Your task to perform on an android device: turn off improve location accuracy Image 0: 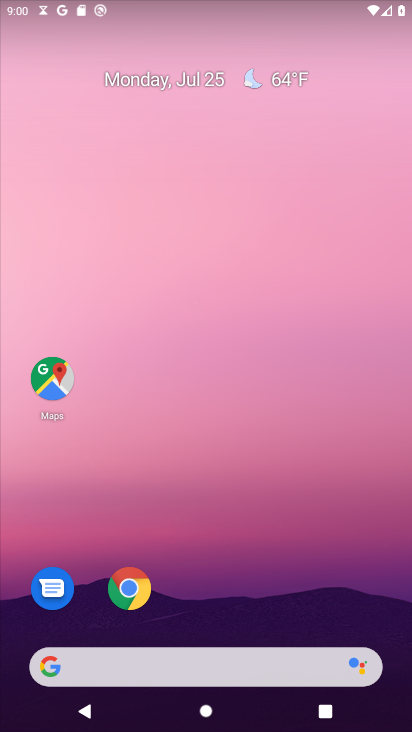
Step 0: drag from (198, 657) to (187, 72)
Your task to perform on an android device: turn off improve location accuracy Image 1: 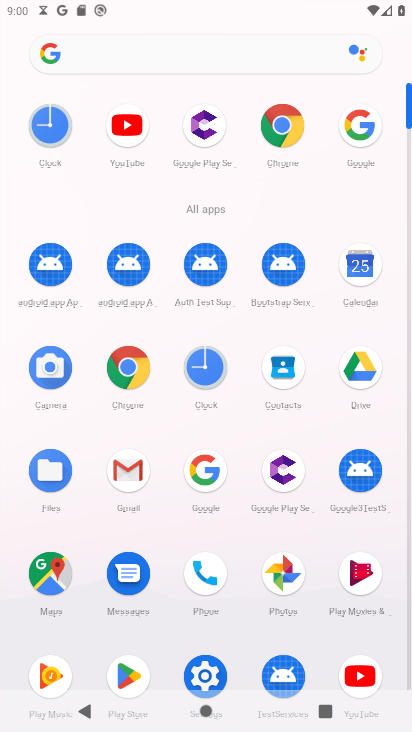
Step 1: click (208, 676)
Your task to perform on an android device: turn off improve location accuracy Image 2: 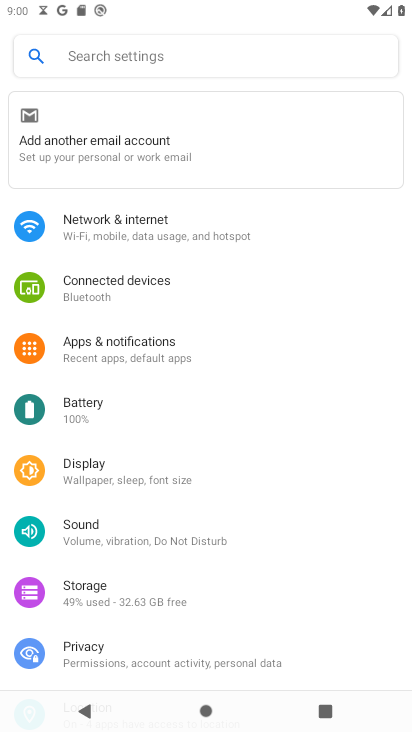
Step 2: drag from (138, 607) to (117, 185)
Your task to perform on an android device: turn off improve location accuracy Image 3: 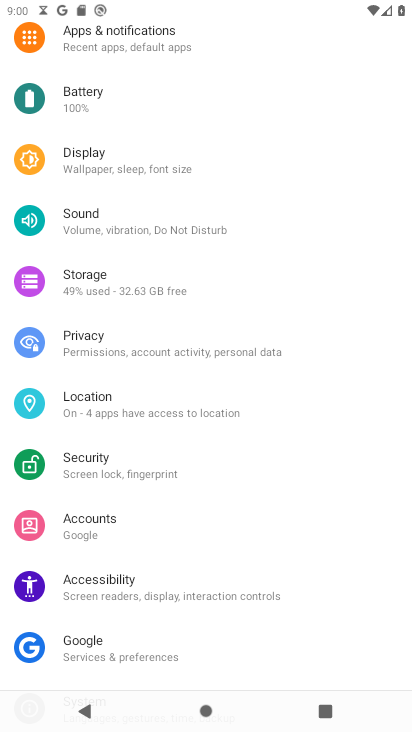
Step 3: click (76, 403)
Your task to perform on an android device: turn off improve location accuracy Image 4: 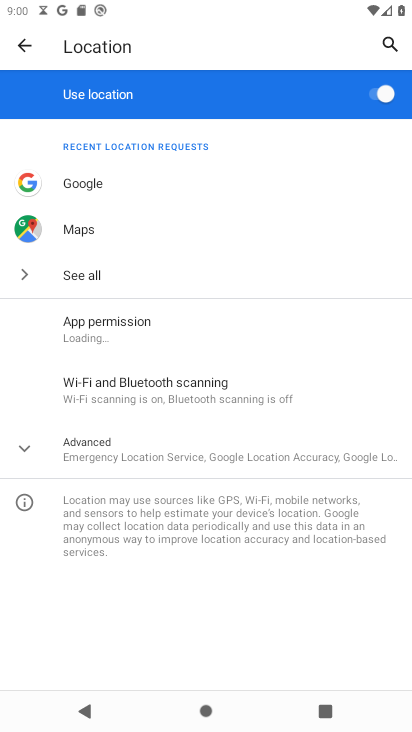
Step 4: click (104, 456)
Your task to perform on an android device: turn off improve location accuracy Image 5: 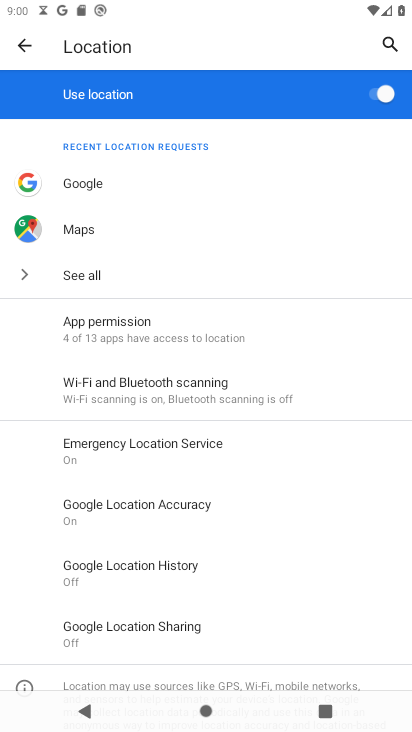
Step 5: click (124, 507)
Your task to perform on an android device: turn off improve location accuracy Image 6: 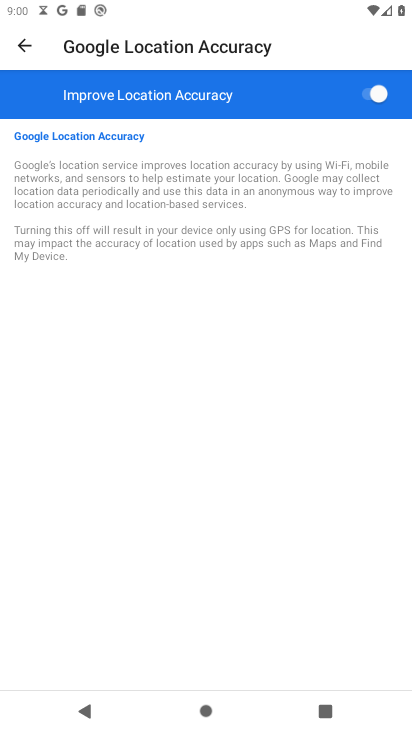
Step 6: click (376, 104)
Your task to perform on an android device: turn off improve location accuracy Image 7: 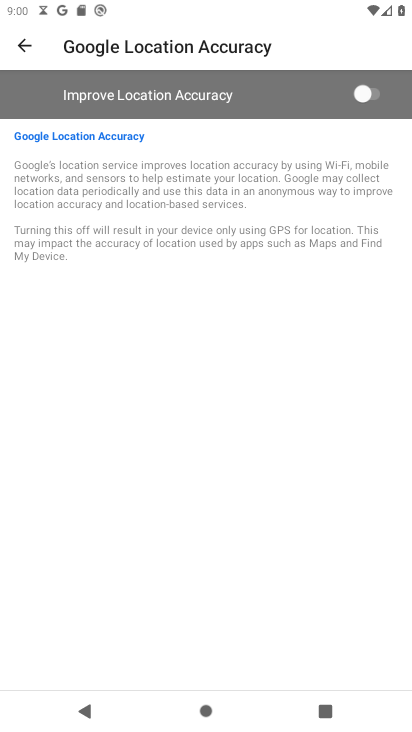
Step 7: task complete